Your task to perform on an android device: turn vacation reply on in the gmail app Image 0: 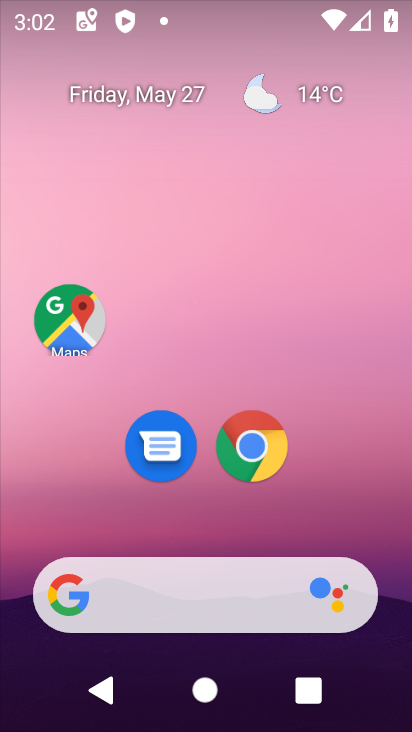
Step 0: drag from (176, 594) to (314, 145)
Your task to perform on an android device: turn vacation reply on in the gmail app Image 1: 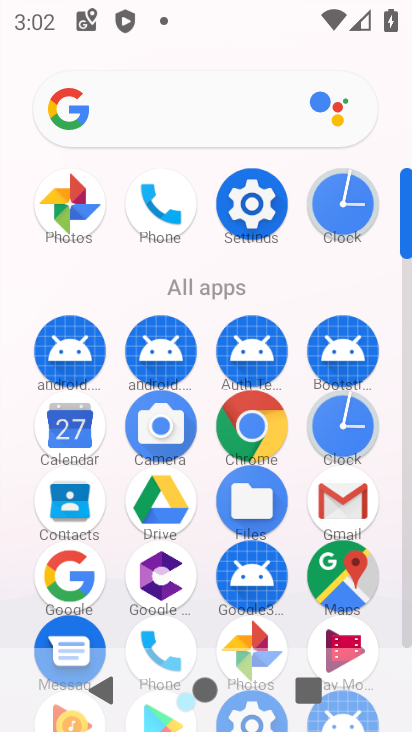
Step 1: click (351, 509)
Your task to perform on an android device: turn vacation reply on in the gmail app Image 2: 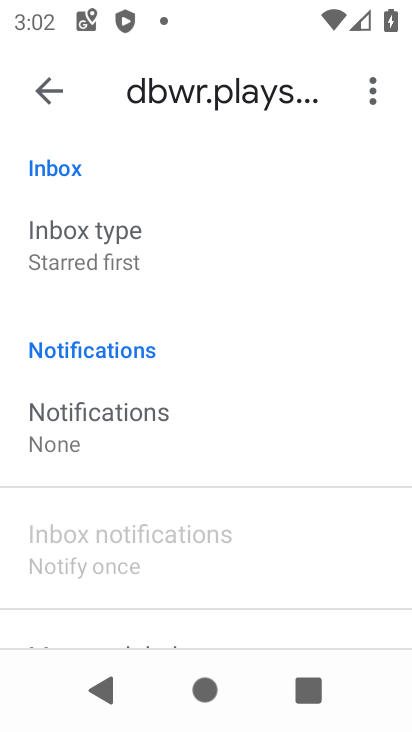
Step 2: drag from (280, 520) to (354, 124)
Your task to perform on an android device: turn vacation reply on in the gmail app Image 3: 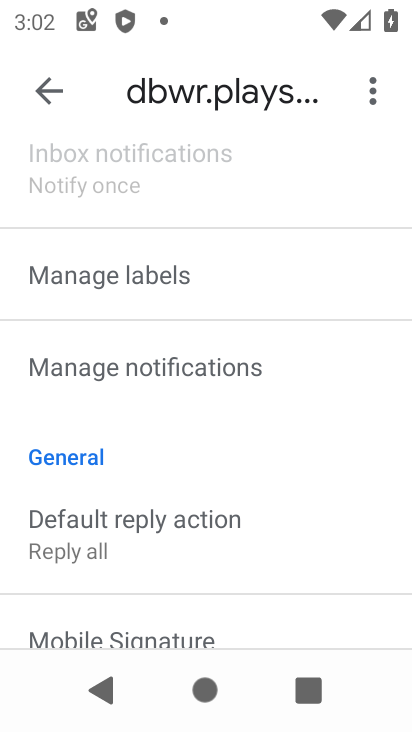
Step 3: drag from (236, 439) to (296, 71)
Your task to perform on an android device: turn vacation reply on in the gmail app Image 4: 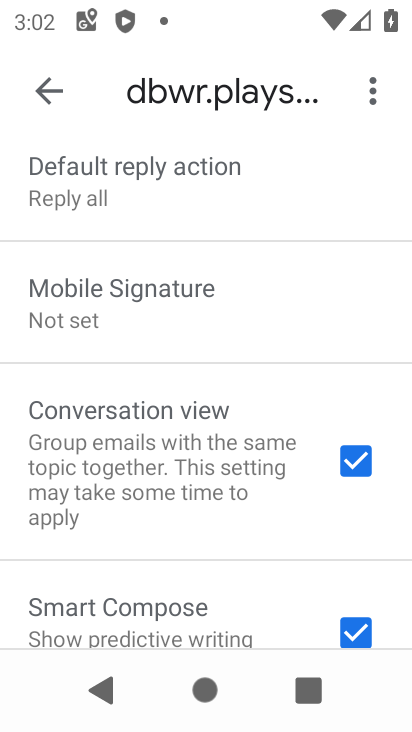
Step 4: drag from (172, 559) to (382, 40)
Your task to perform on an android device: turn vacation reply on in the gmail app Image 5: 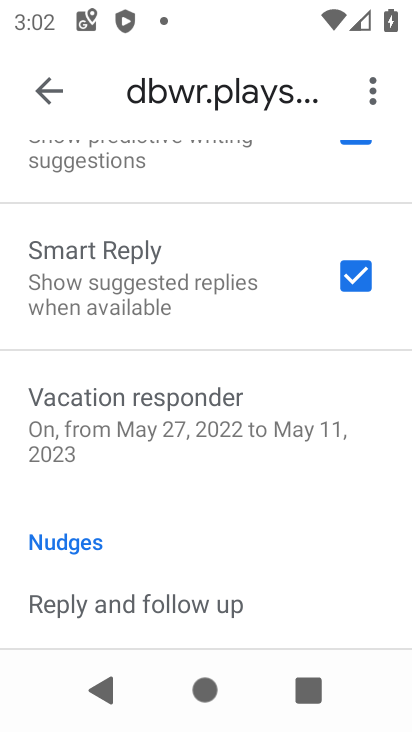
Step 5: click (180, 412)
Your task to perform on an android device: turn vacation reply on in the gmail app Image 6: 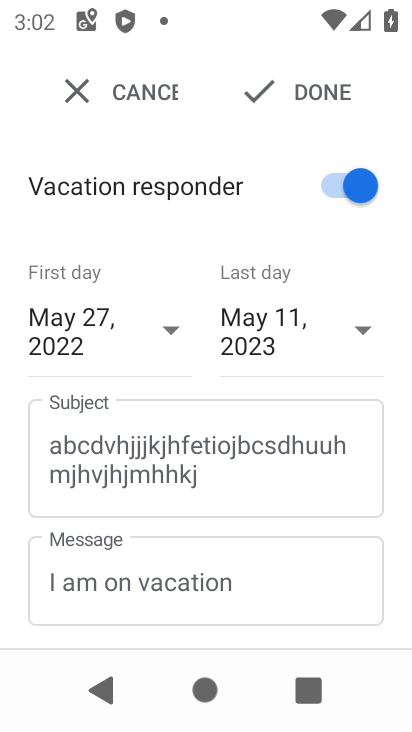
Step 6: task complete